Your task to perform on an android device: Open Android settings Image 0: 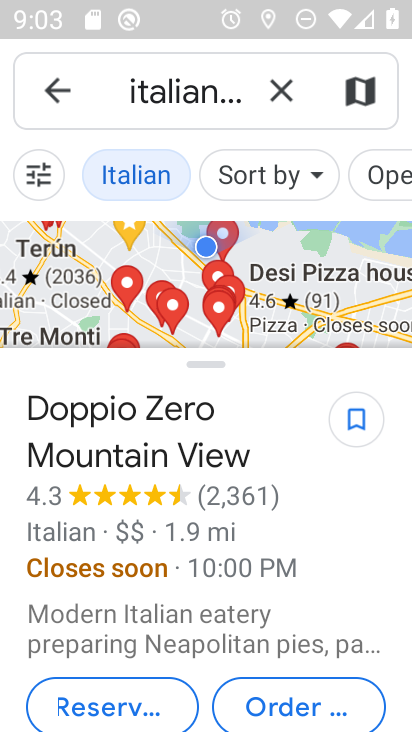
Step 0: press home button
Your task to perform on an android device: Open Android settings Image 1: 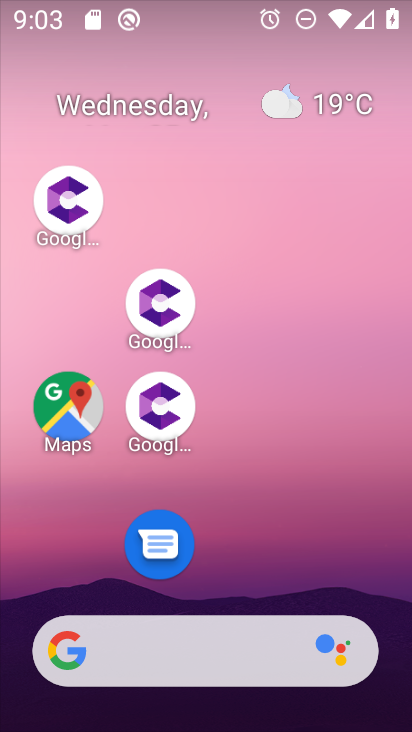
Step 1: drag from (288, 574) to (205, 55)
Your task to perform on an android device: Open Android settings Image 2: 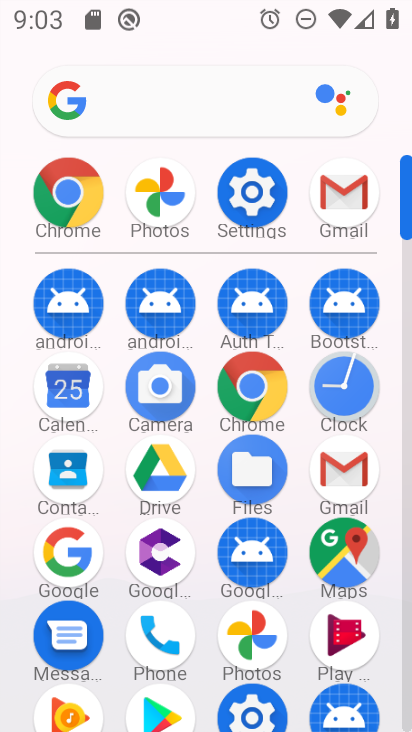
Step 2: click (241, 189)
Your task to perform on an android device: Open Android settings Image 3: 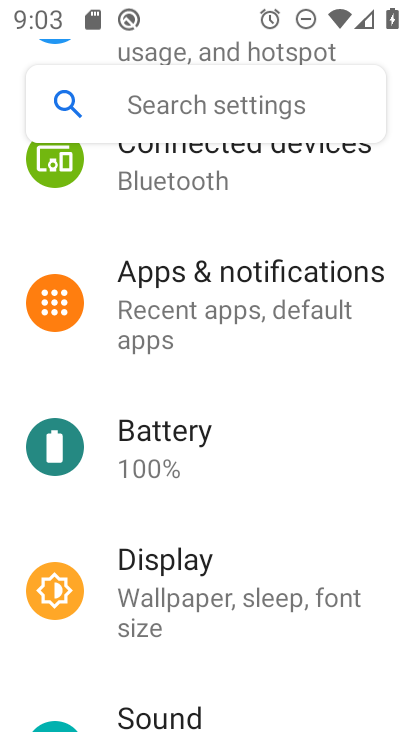
Step 3: task complete